Your task to perform on an android device: refresh tabs in the chrome app Image 0: 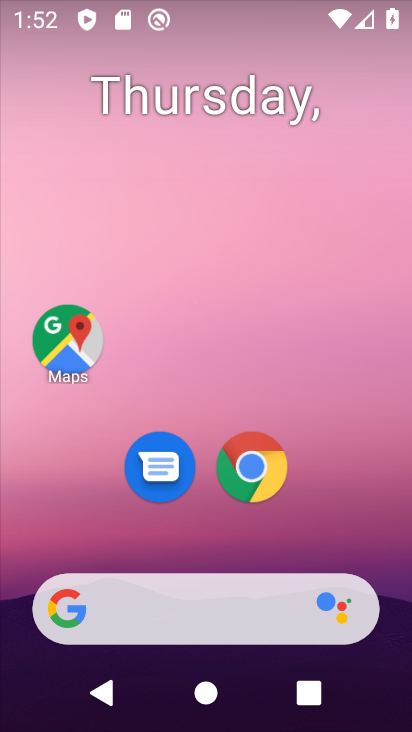
Step 0: press home button
Your task to perform on an android device: refresh tabs in the chrome app Image 1: 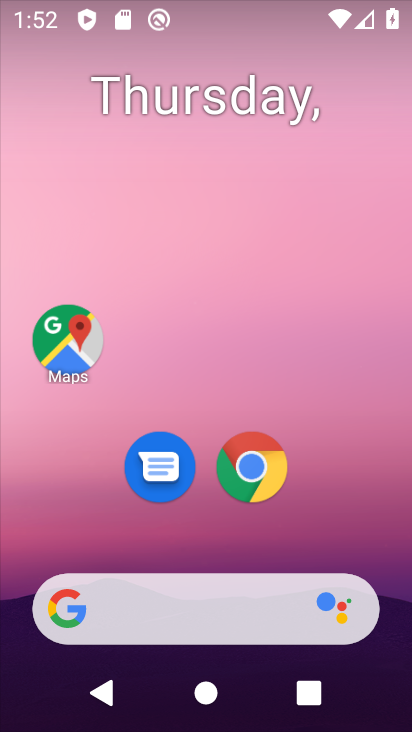
Step 1: drag from (345, 486) to (321, 72)
Your task to perform on an android device: refresh tabs in the chrome app Image 2: 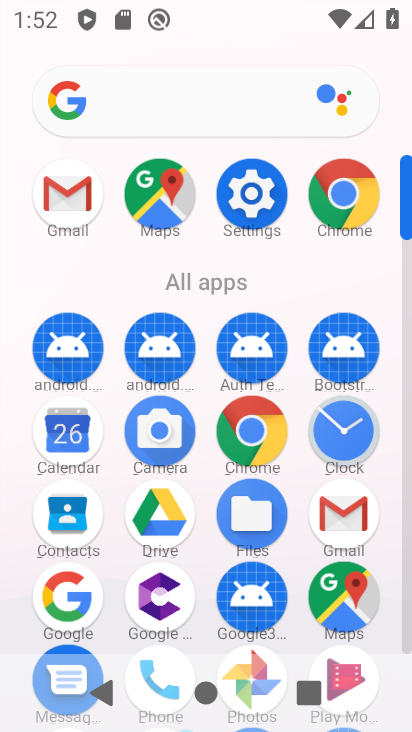
Step 2: click (265, 442)
Your task to perform on an android device: refresh tabs in the chrome app Image 3: 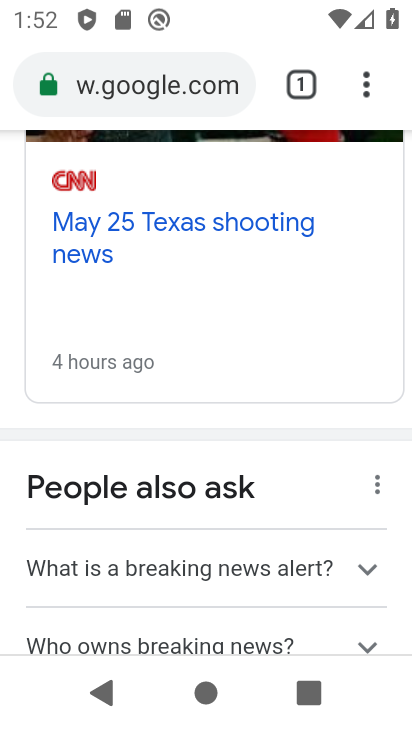
Step 3: click (369, 94)
Your task to perform on an android device: refresh tabs in the chrome app Image 4: 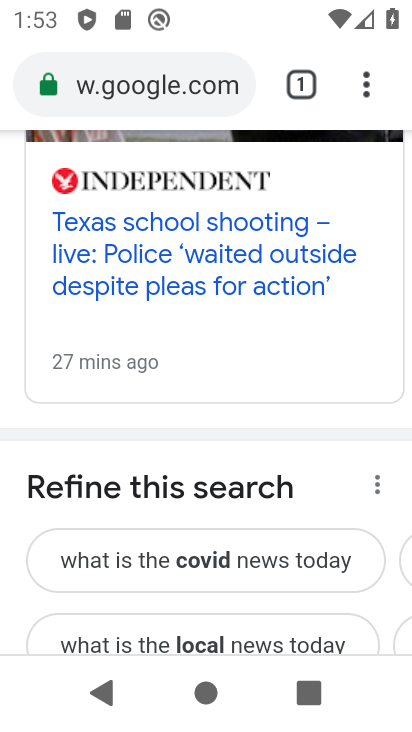
Step 4: task complete